Your task to perform on an android device: Is it going to rain today? Image 0: 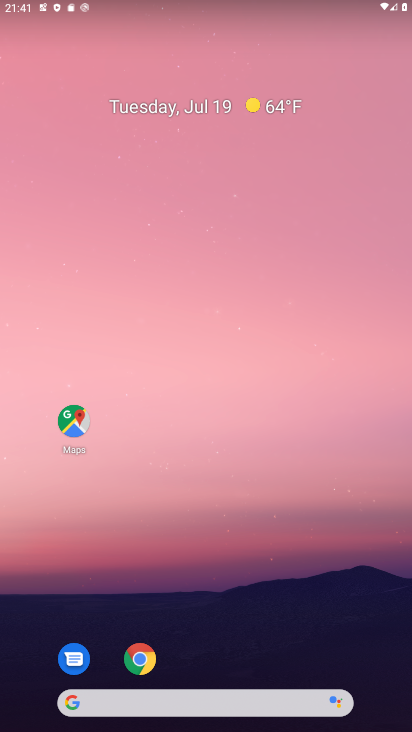
Step 0: click (222, 699)
Your task to perform on an android device: Is it going to rain today? Image 1: 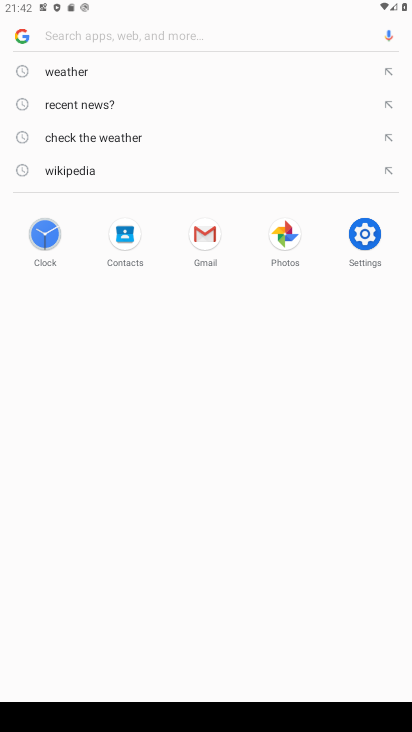
Step 1: click (83, 76)
Your task to perform on an android device: Is it going to rain today? Image 2: 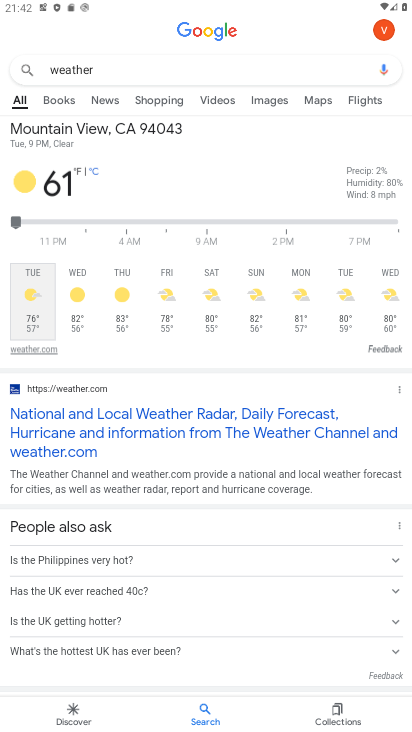
Step 2: task complete